Your task to perform on an android device: Go to location settings Image 0: 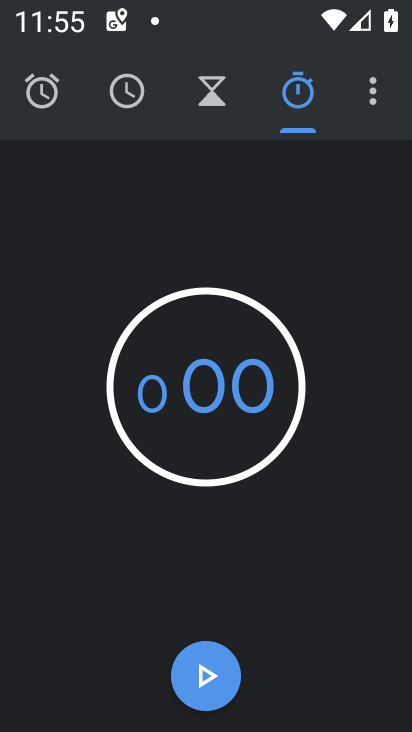
Step 0: press home button
Your task to perform on an android device: Go to location settings Image 1: 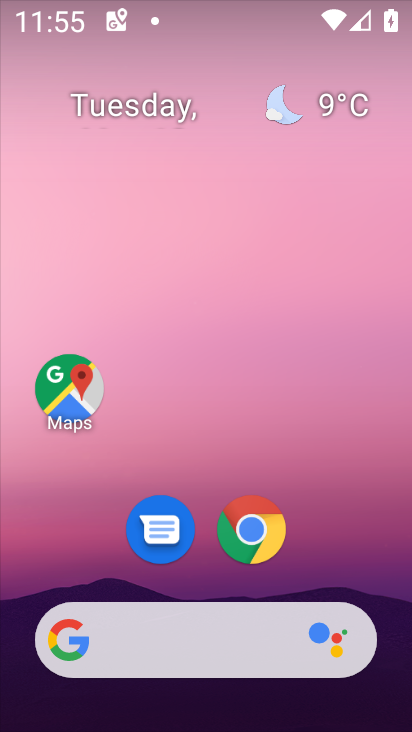
Step 1: drag from (354, 533) to (344, 148)
Your task to perform on an android device: Go to location settings Image 2: 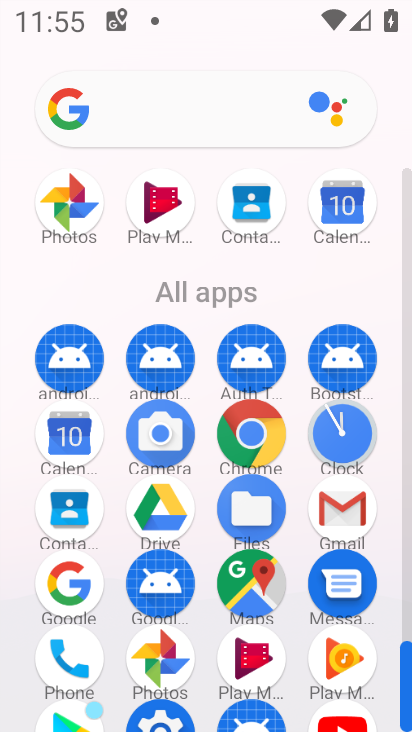
Step 2: click (185, 720)
Your task to perform on an android device: Go to location settings Image 3: 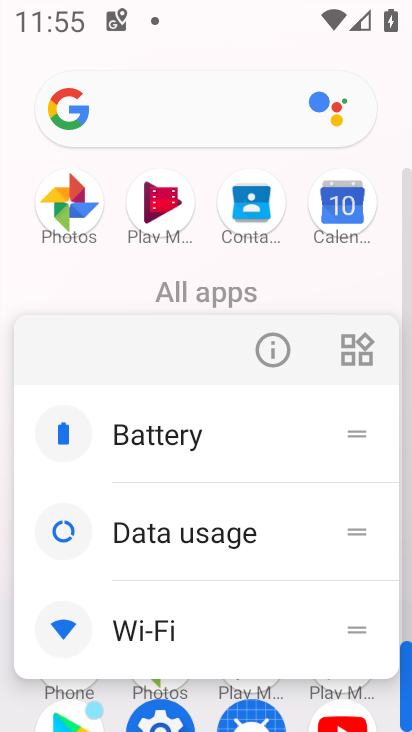
Step 3: click (150, 718)
Your task to perform on an android device: Go to location settings Image 4: 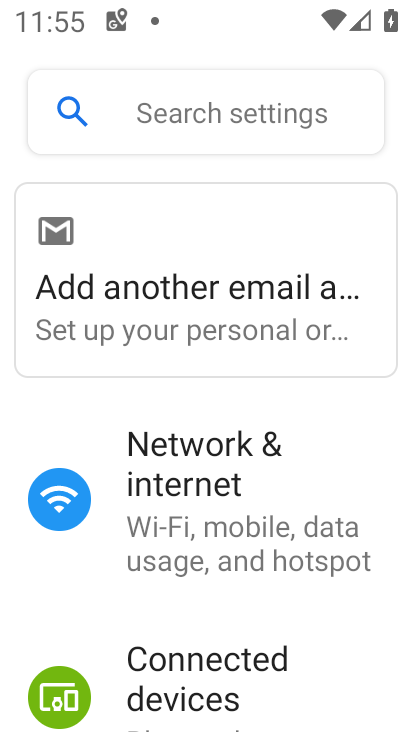
Step 4: drag from (253, 626) to (268, 209)
Your task to perform on an android device: Go to location settings Image 5: 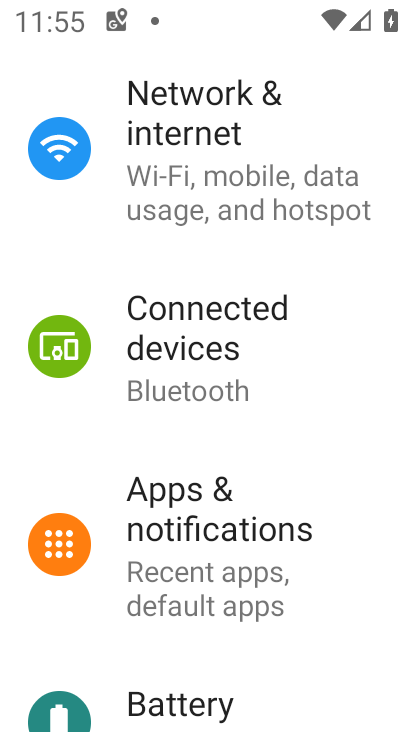
Step 5: drag from (242, 624) to (295, 172)
Your task to perform on an android device: Go to location settings Image 6: 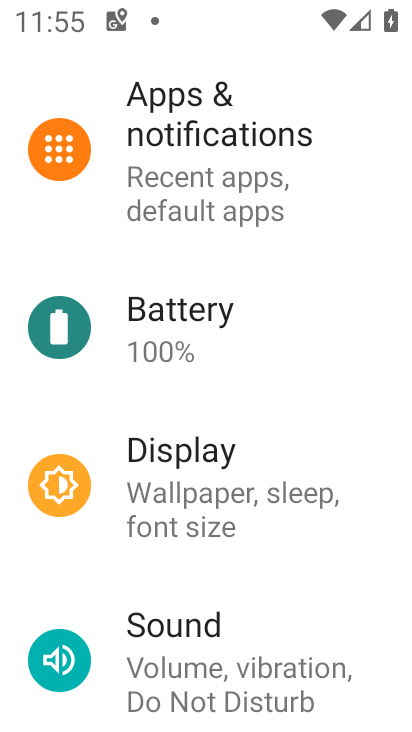
Step 6: drag from (235, 614) to (262, 200)
Your task to perform on an android device: Go to location settings Image 7: 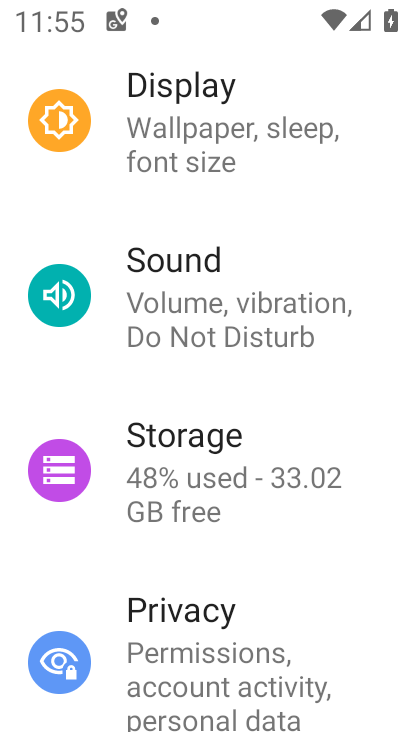
Step 7: drag from (267, 641) to (275, 201)
Your task to perform on an android device: Go to location settings Image 8: 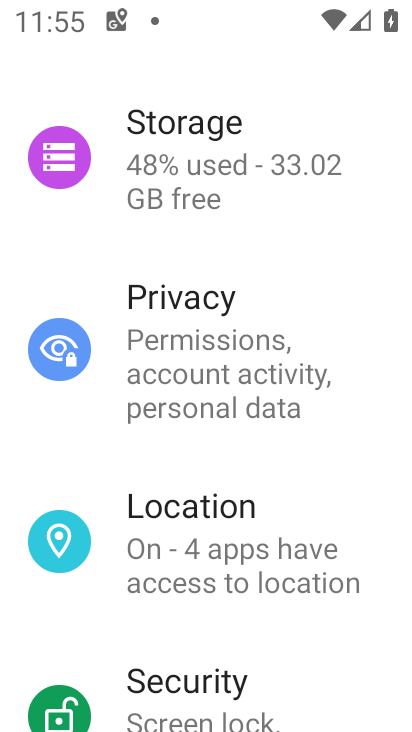
Step 8: click (242, 570)
Your task to perform on an android device: Go to location settings Image 9: 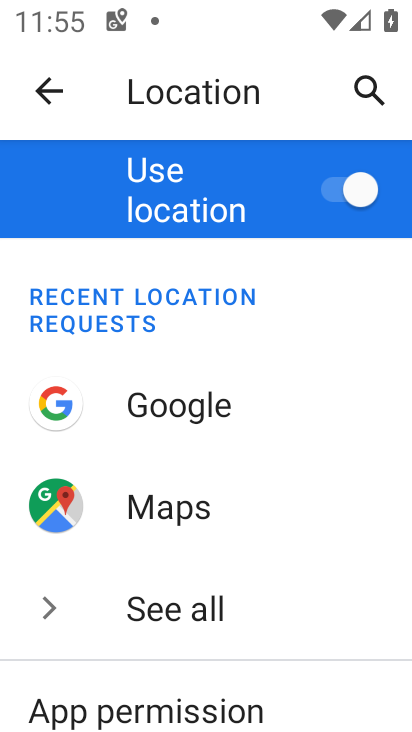
Step 9: task complete